Your task to perform on an android device: open chrome privacy settings Image 0: 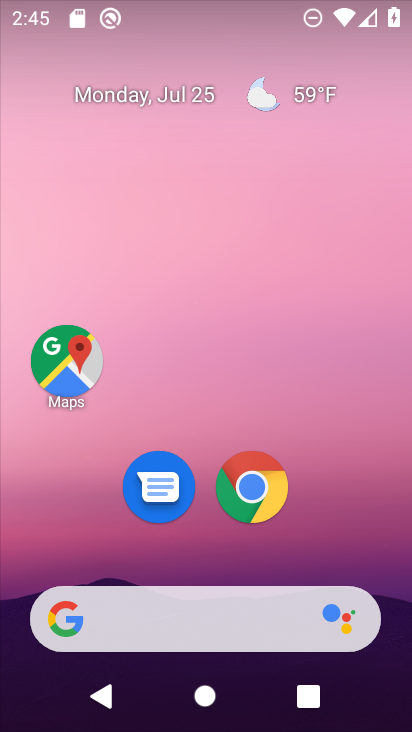
Step 0: click (244, 498)
Your task to perform on an android device: open chrome privacy settings Image 1: 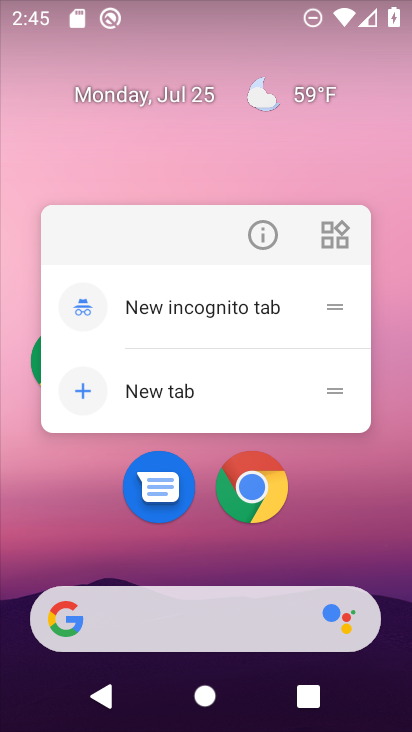
Step 1: click (244, 498)
Your task to perform on an android device: open chrome privacy settings Image 2: 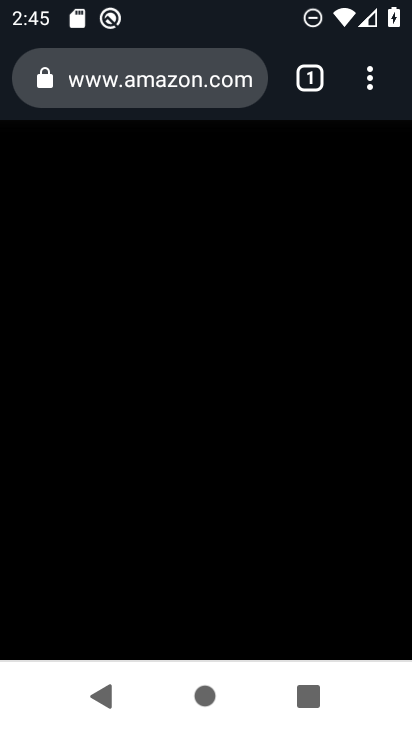
Step 2: drag from (373, 74) to (98, 547)
Your task to perform on an android device: open chrome privacy settings Image 3: 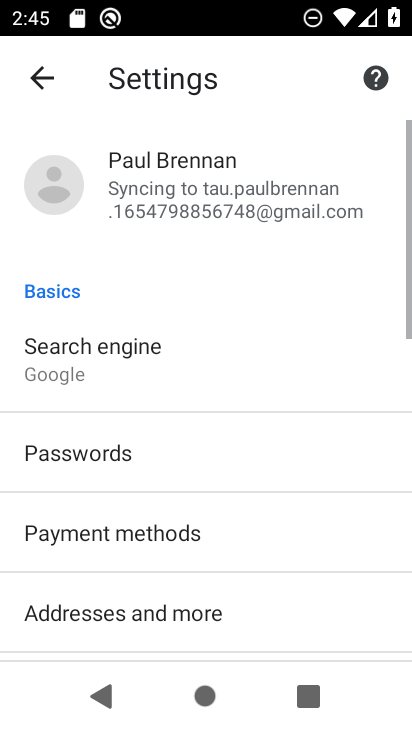
Step 3: drag from (99, 557) to (192, 62)
Your task to perform on an android device: open chrome privacy settings Image 4: 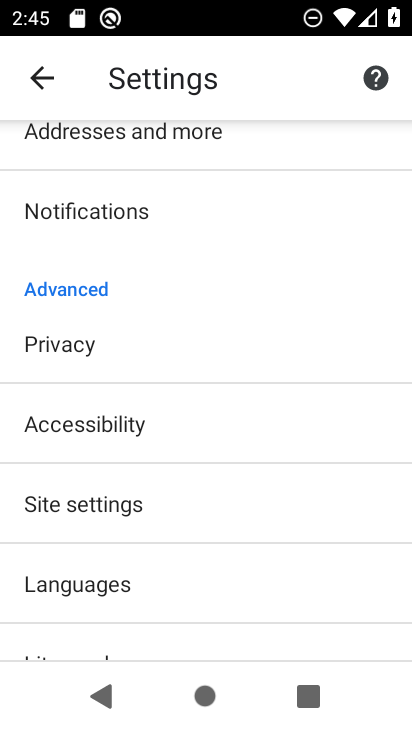
Step 4: click (54, 349)
Your task to perform on an android device: open chrome privacy settings Image 5: 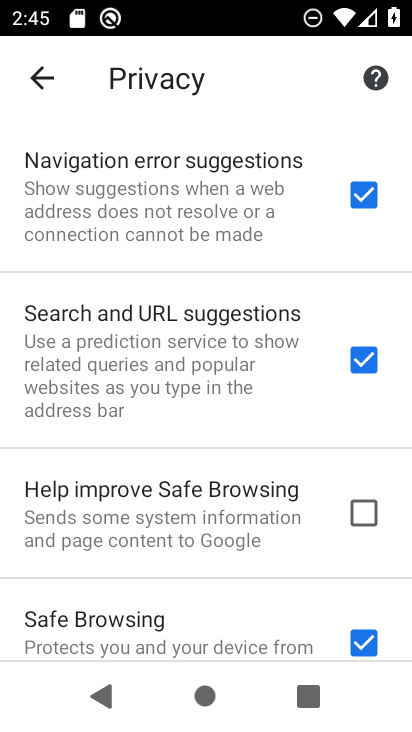
Step 5: task complete